Your task to perform on an android device: Open my contact list Image 0: 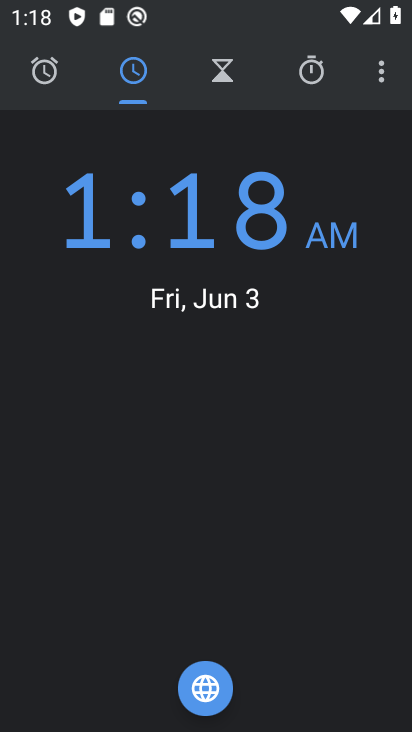
Step 0: task complete